Your task to perform on an android device: visit the assistant section in the google photos Image 0: 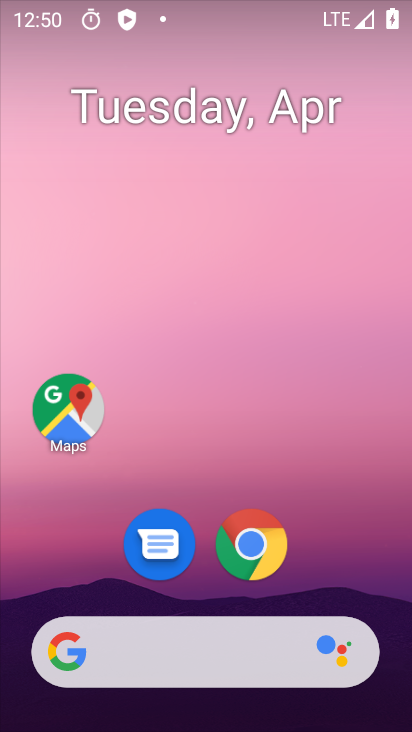
Step 0: drag from (368, 551) to (370, 32)
Your task to perform on an android device: visit the assistant section in the google photos Image 1: 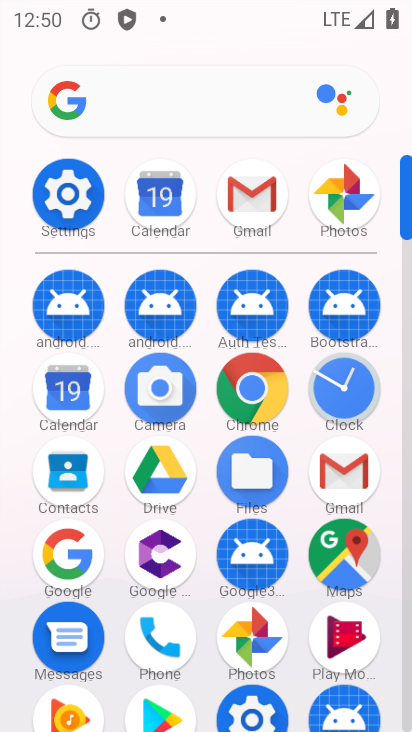
Step 1: click (343, 199)
Your task to perform on an android device: visit the assistant section in the google photos Image 2: 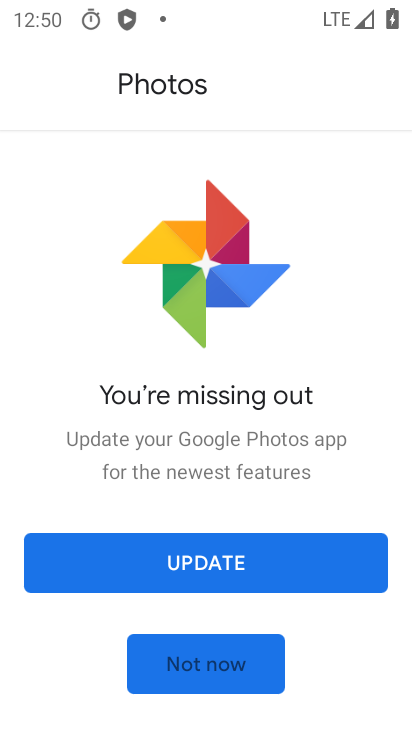
Step 2: click (209, 678)
Your task to perform on an android device: visit the assistant section in the google photos Image 3: 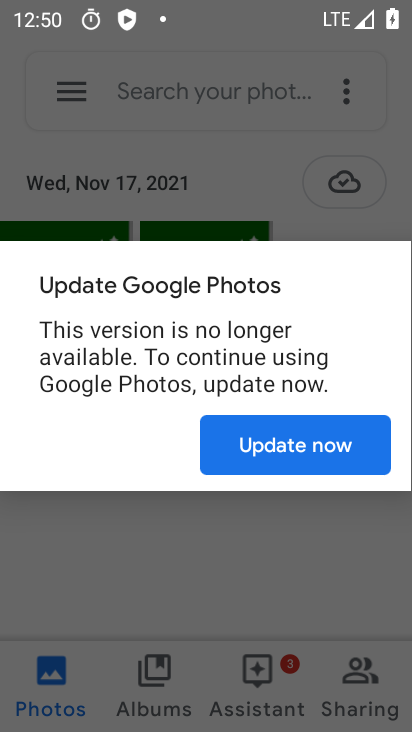
Step 3: click (281, 451)
Your task to perform on an android device: visit the assistant section in the google photos Image 4: 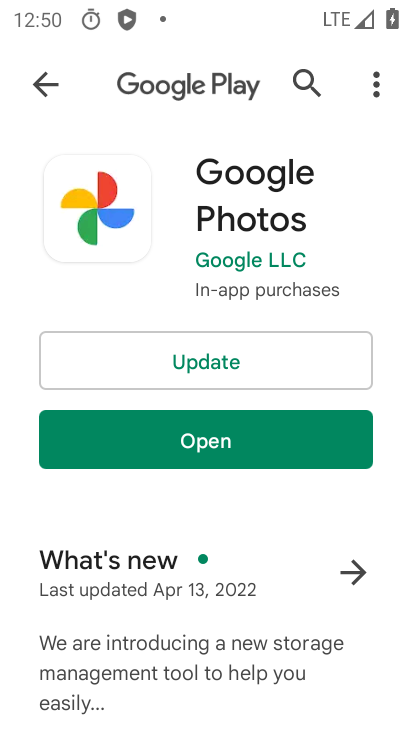
Step 4: click (214, 450)
Your task to perform on an android device: visit the assistant section in the google photos Image 5: 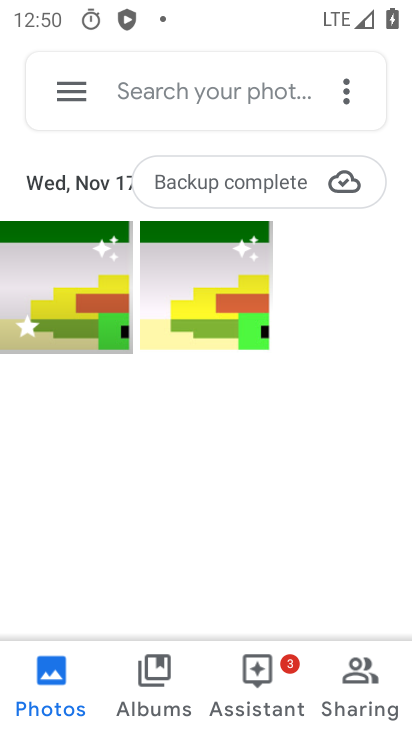
Step 5: click (251, 704)
Your task to perform on an android device: visit the assistant section in the google photos Image 6: 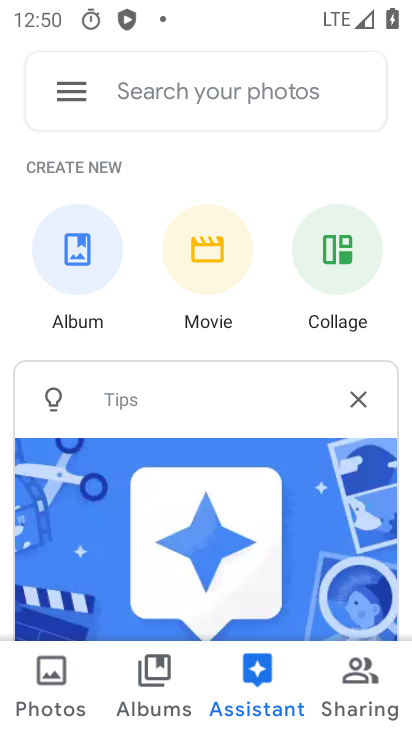
Step 6: task complete